Your task to perform on an android device: turn off location history Image 0: 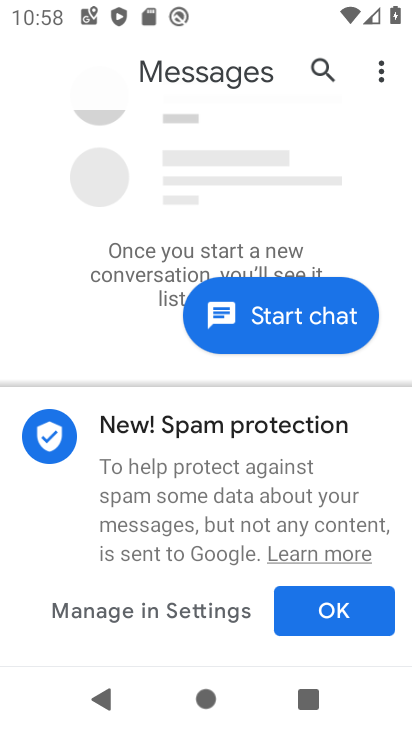
Step 0: press home button
Your task to perform on an android device: turn off location history Image 1: 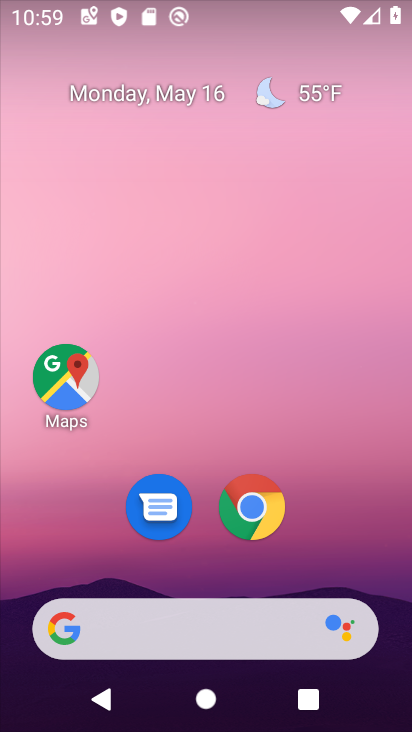
Step 1: drag from (329, 535) to (323, 94)
Your task to perform on an android device: turn off location history Image 2: 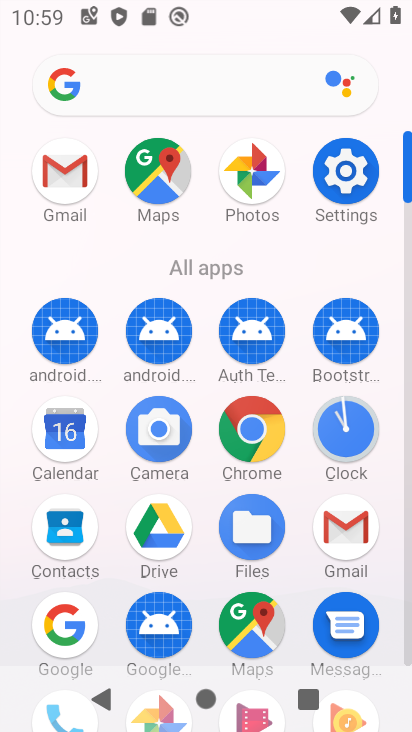
Step 2: click (350, 161)
Your task to perform on an android device: turn off location history Image 3: 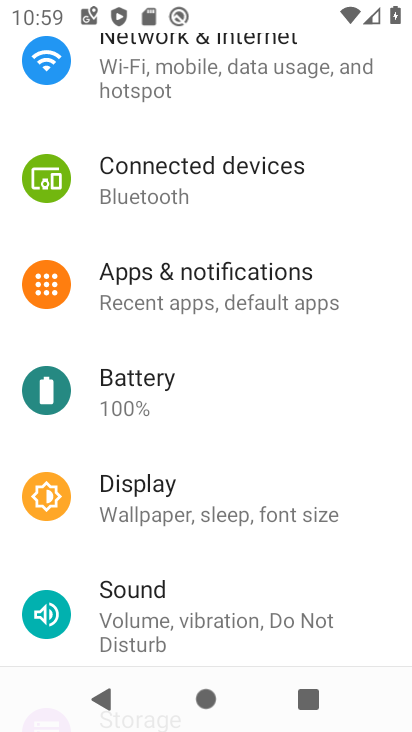
Step 3: drag from (178, 637) to (184, 355)
Your task to perform on an android device: turn off location history Image 4: 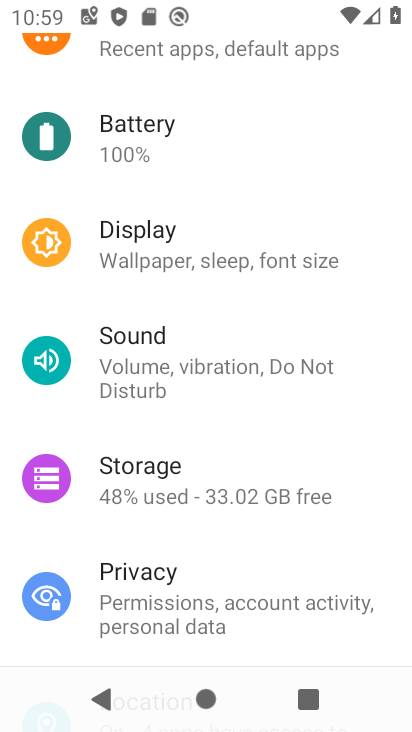
Step 4: drag from (202, 594) to (201, 229)
Your task to perform on an android device: turn off location history Image 5: 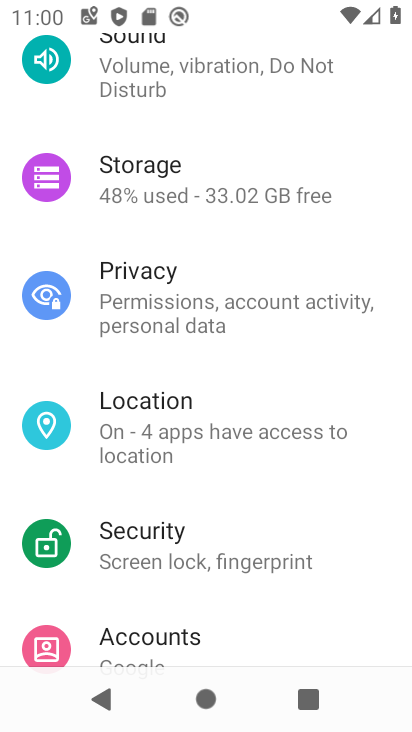
Step 5: click (142, 437)
Your task to perform on an android device: turn off location history Image 6: 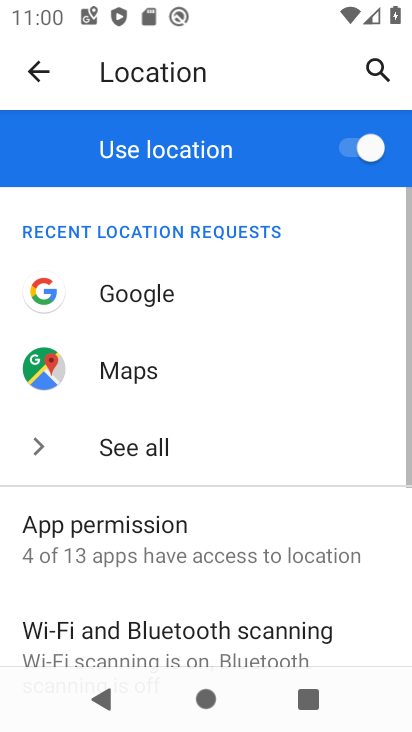
Step 6: drag from (123, 602) to (169, 326)
Your task to perform on an android device: turn off location history Image 7: 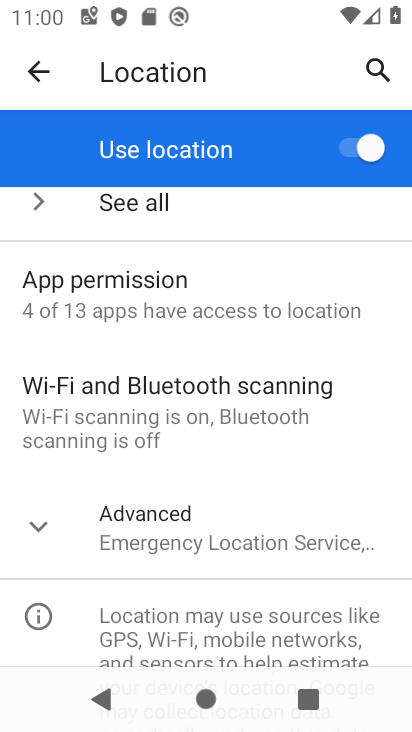
Step 7: click (42, 530)
Your task to perform on an android device: turn off location history Image 8: 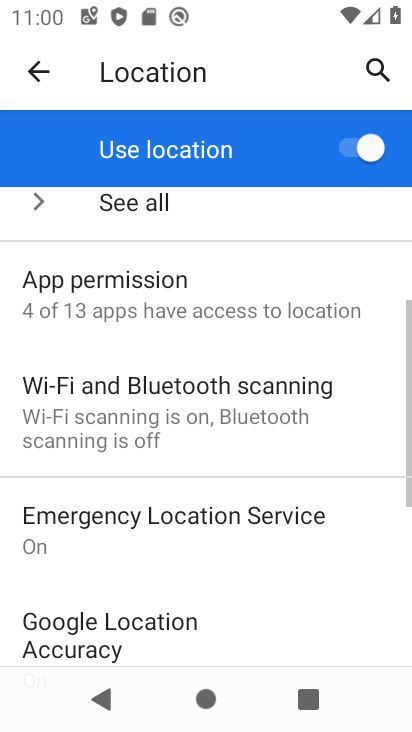
Step 8: drag from (202, 629) to (223, 227)
Your task to perform on an android device: turn off location history Image 9: 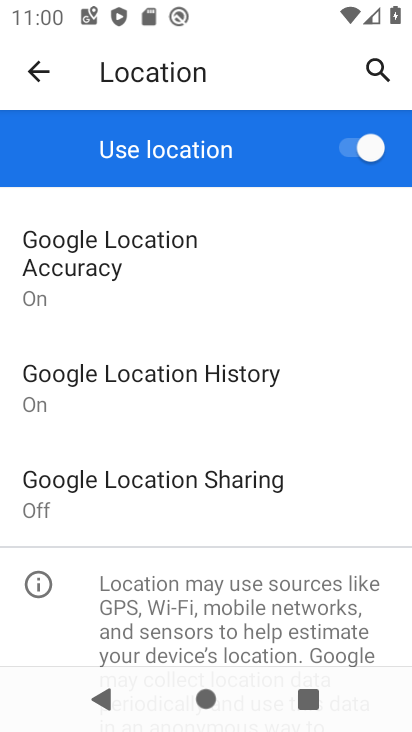
Step 9: click (197, 401)
Your task to perform on an android device: turn off location history Image 10: 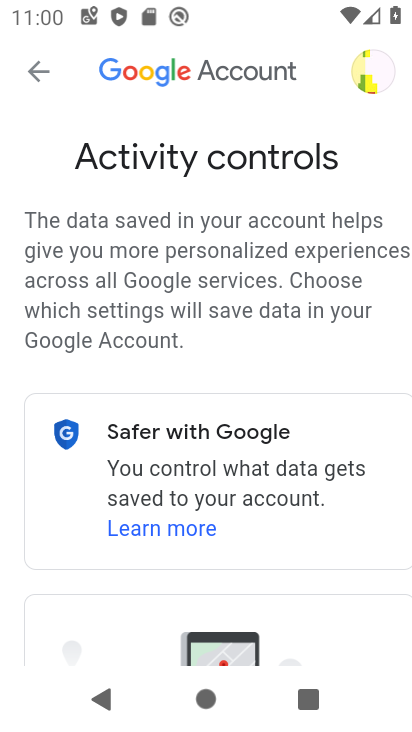
Step 10: drag from (275, 632) to (284, 211)
Your task to perform on an android device: turn off location history Image 11: 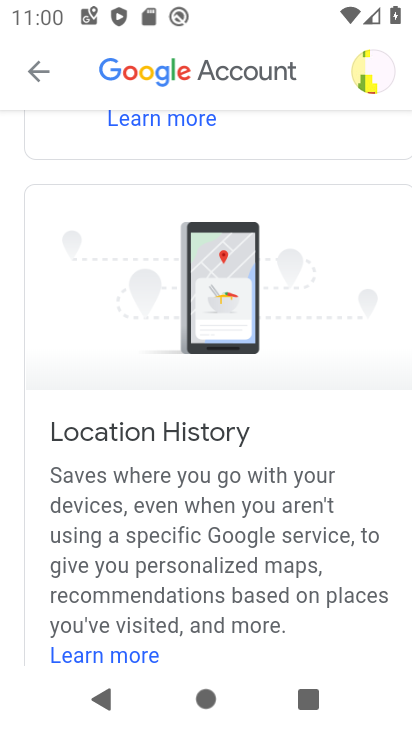
Step 11: drag from (155, 558) to (199, 233)
Your task to perform on an android device: turn off location history Image 12: 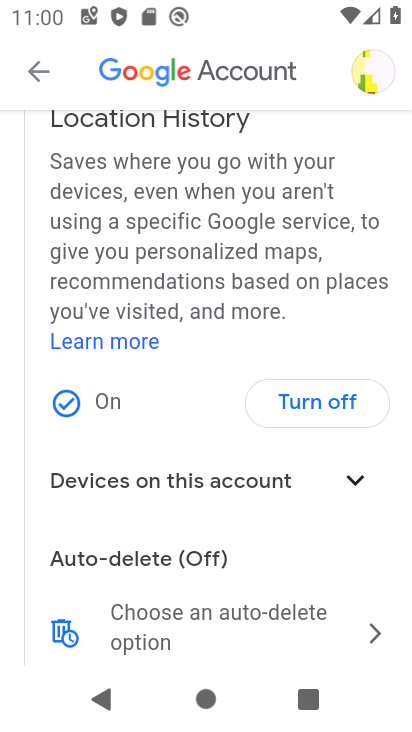
Step 12: click (344, 416)
Your task to perform on an android device: turn off location history Image 13: 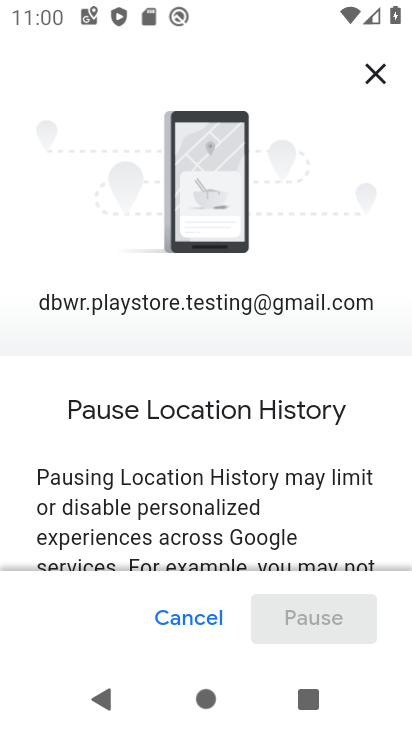
Step 13: drag from (273, 523) to (259, 97)
Your task to perform on an android device: turn off location history Image 14: 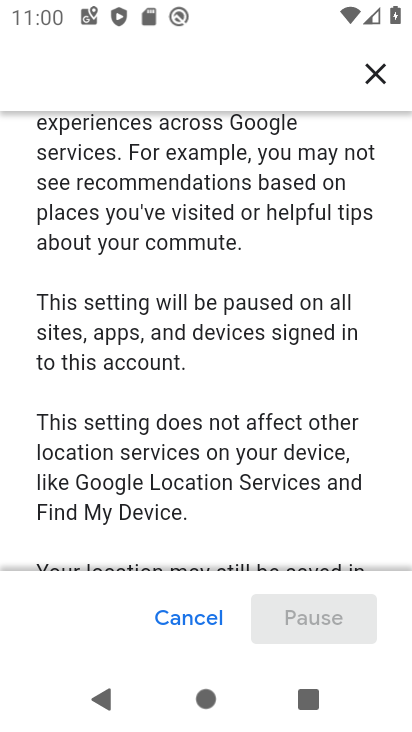
Step 14: drag from (224, 505) to (218, 87)
Your task to perform on an android device: turn off location history Image 15: 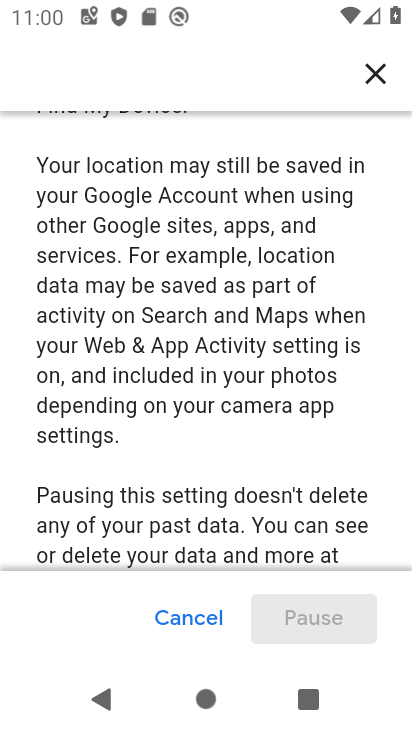
Step 15: drag from (267, 536) to (264, 152)
Your task to perform on an android device: turn off location history Image 16: 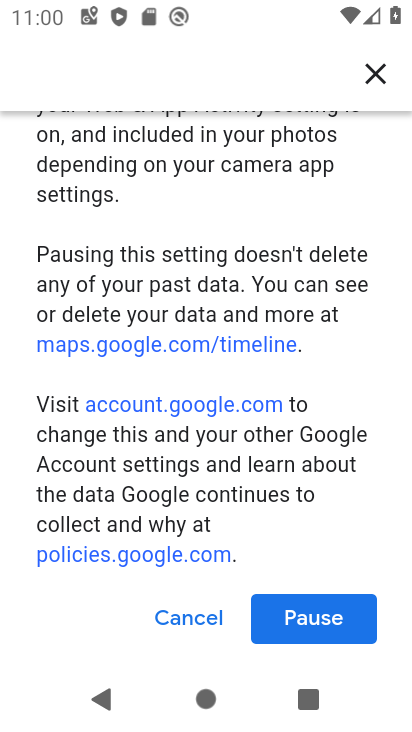
Step 16: click (305, 627)
Your task to perform on an android device: turn off location history Image 17: 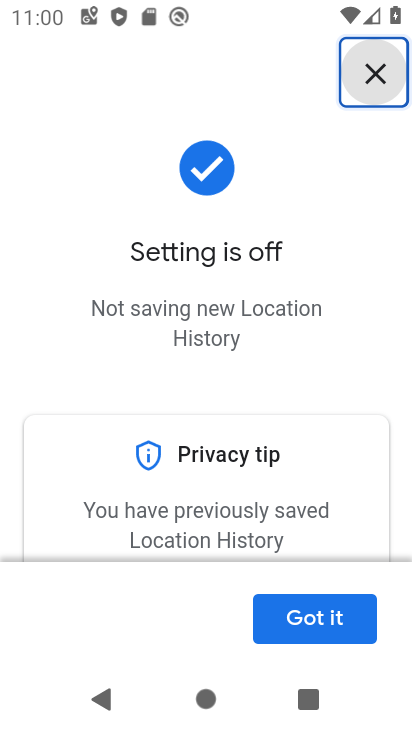
Step 17: click (301, 613)
Your task to perform on an android device: turn off location history Image 18: 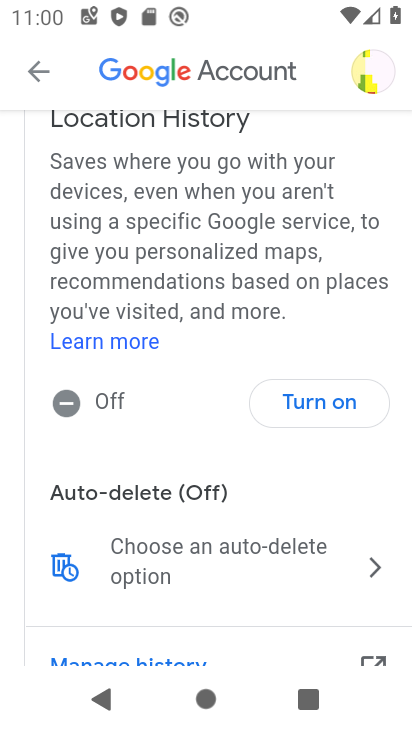
Step 18: task complete